Your task to perform on an android device: Go to wifi settings Image 0: 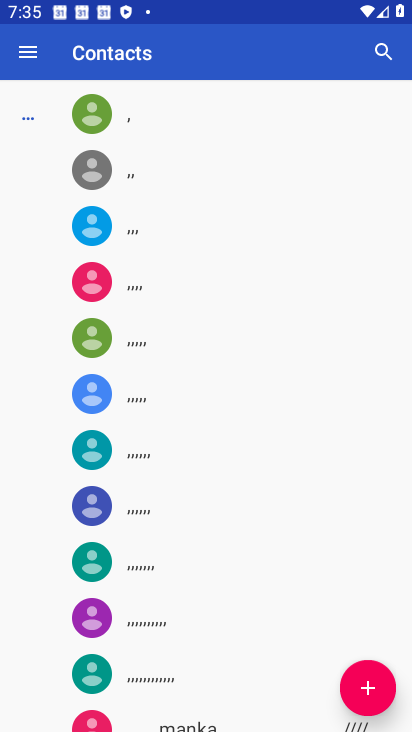
Step 0: press home button
Your task to perform on an android device: Go to wifi settings Image 1: 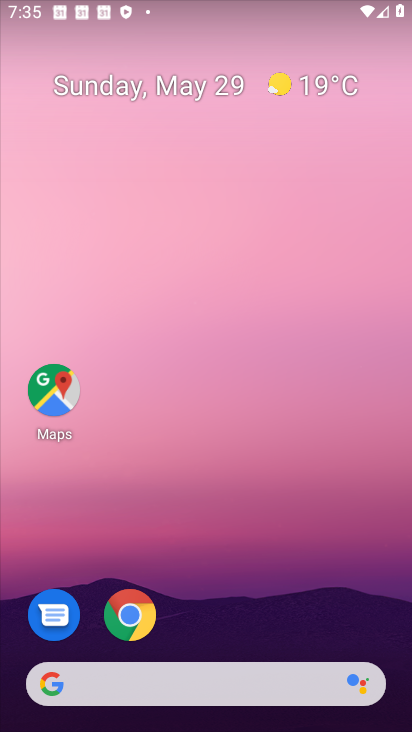
Step 1: drag from (121, 731) to (210, 21)
Your task to perform on an android device: Go to wifi settings Image 2: 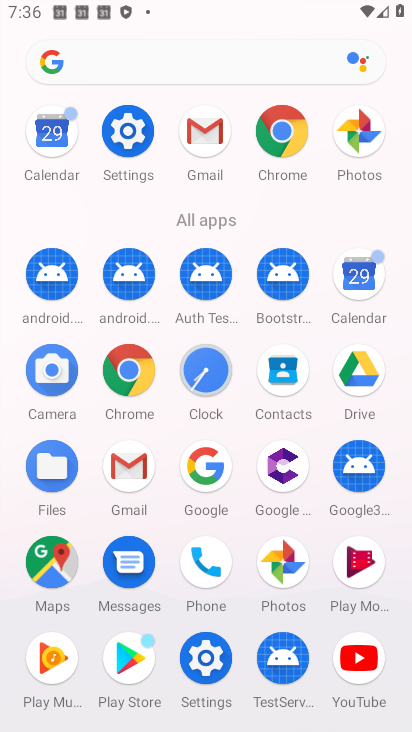
Step 2: click (121, 152)
Your task to perform on an android device: Go to wifi settings Image 3: 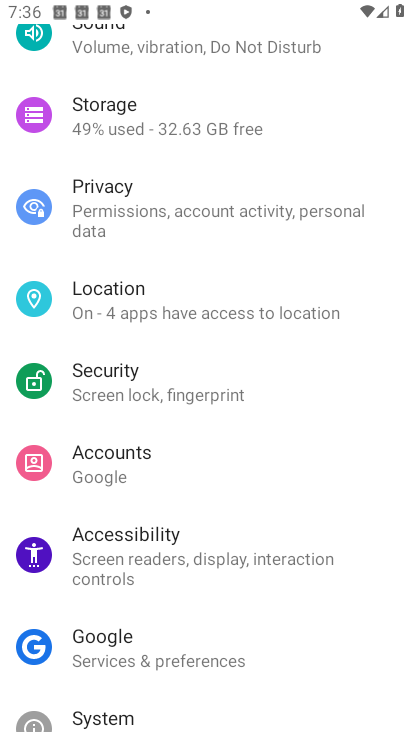
Step 3: drag from (245, 110) to (234, 630)
Your task to perform on an android device: Go to wifi settings Image 4: 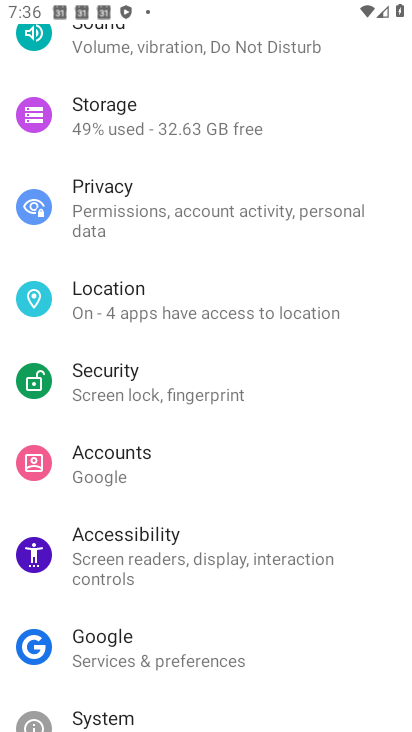
Step 4: drag from (354, 99) to (298, 695)
Your task to perform on an android device: Go to wifi settings Image 5: 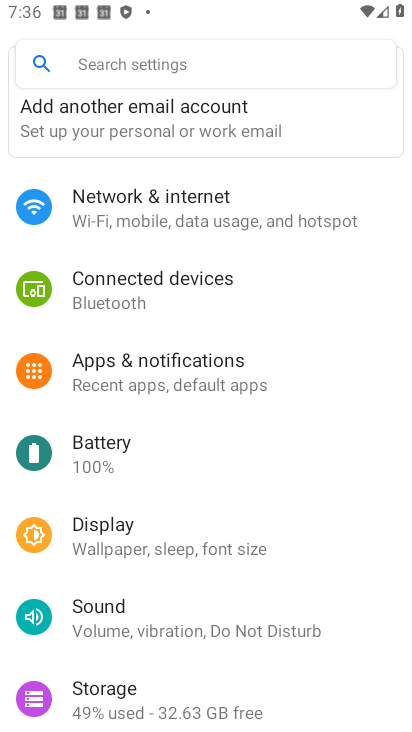
Step 5: click (234, 225)
Your task to perform on an android device: Go to wifi settings Image 6: 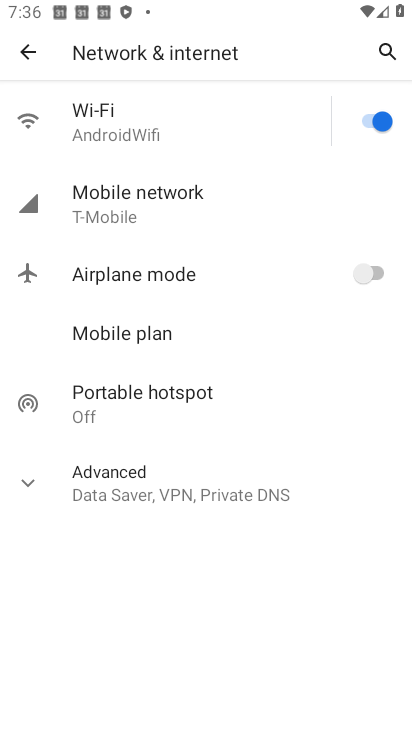
Step 6: click (124, 138)
Your task to perform on an android device: Go to wifi settings Image 7: 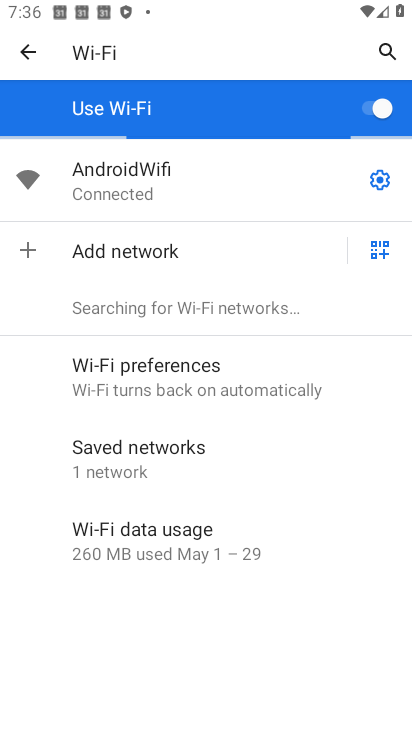
Step 7: task complete